Your task to perform on an android device: Open Android settings Image 0: 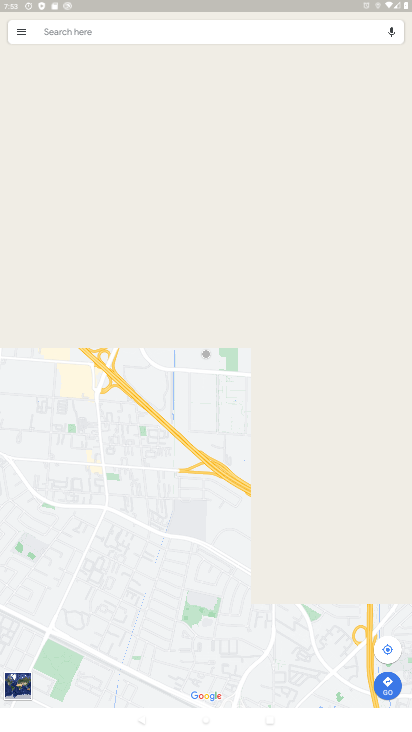
Step 0: drag from (348, 505) to (372, 69)
Your task to perform on an android device: Open Android settings Image 1: 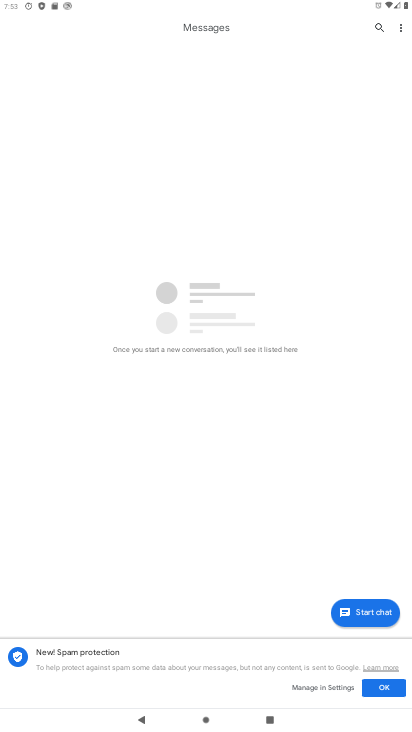
Step 1: press home button
Your task to perform on an android device: Open Android settings Image 2: 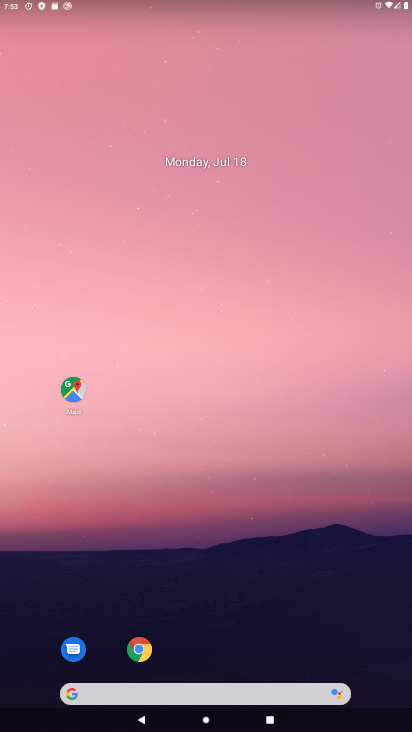
Step 2: drag from (306, 659) to (256, 137)
Your task to perform on an android device: Open Android settings Image 3: 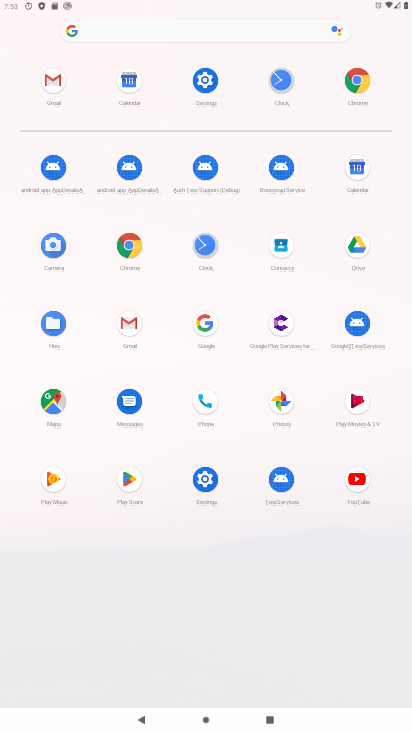
Step 3: click (194, 83)
Your task to perform on an android device: Open Android settings Image 4: 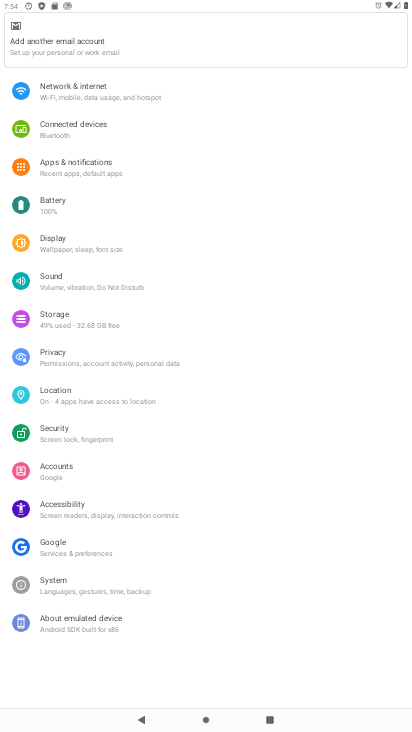
Step 4: task complete